Your task to perform on an android device: toggle show notifications on the lock screen Image 0: 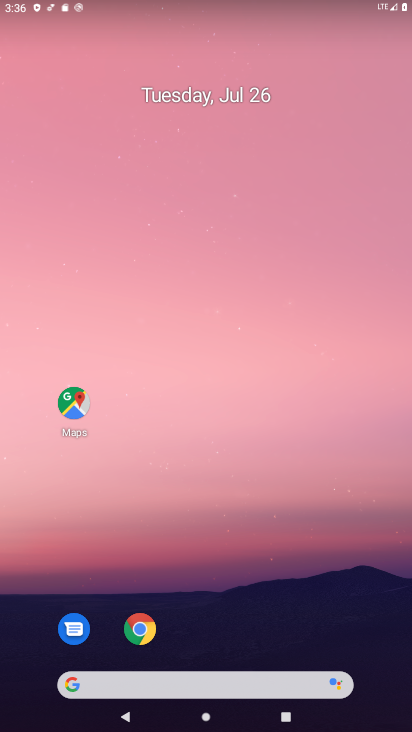
Step 0: drag from (227, 723) to (267, 67)
Your task to perform on an android device: toggle show notifications on the lock screen Image 1: 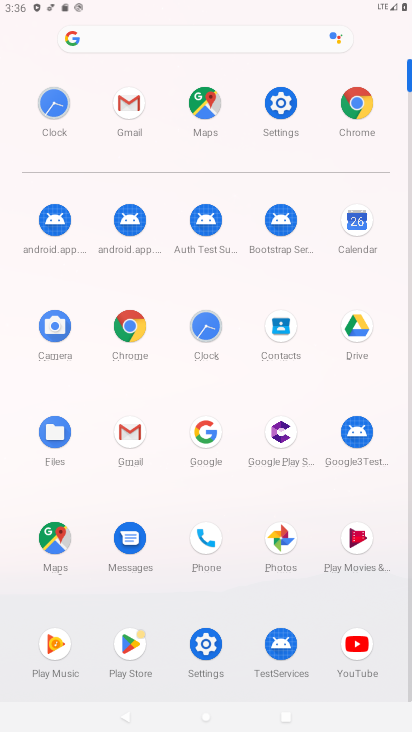
Step 1: click (282, 100)
Your task to perform on an android device: toggle show notifications on the lock screen Image 2: 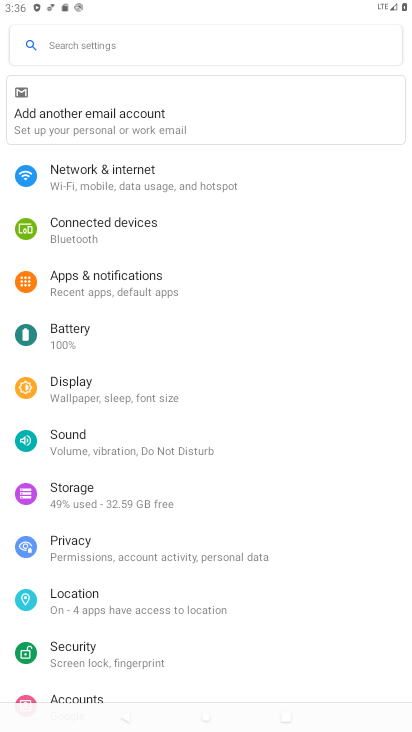
Step 2: click (114, 276)
Your task to perform on an android device: toggle show notifications on the lock screen Image 3: 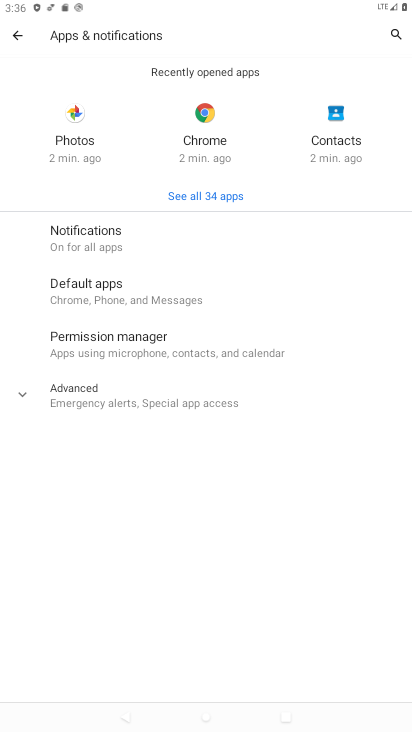
Step 3: click (75, 237)
Your task to perform on an android device: toggle show notifications on the lock screen Image 4: 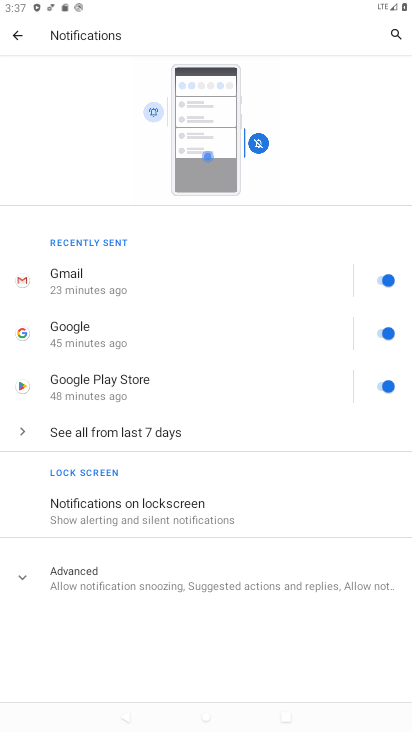
Step 4: click (95, 509)
Your task to perform on an android device: toggle show notifications on the lock screen Image 5: 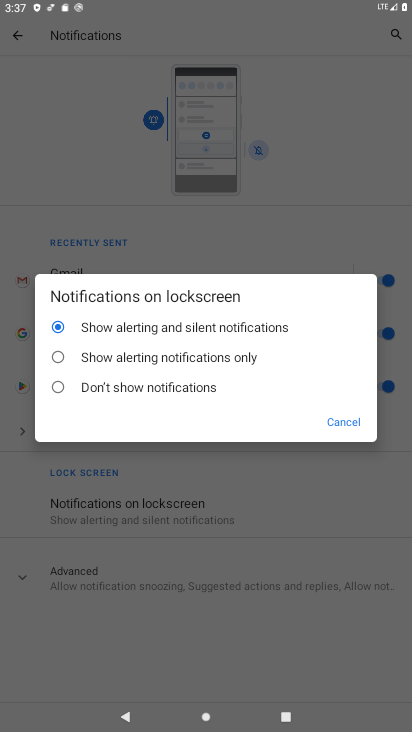
Step 5: click (57, 354)
Your task to perform on an android device: toggle show notifications on the lock screen Image 6: 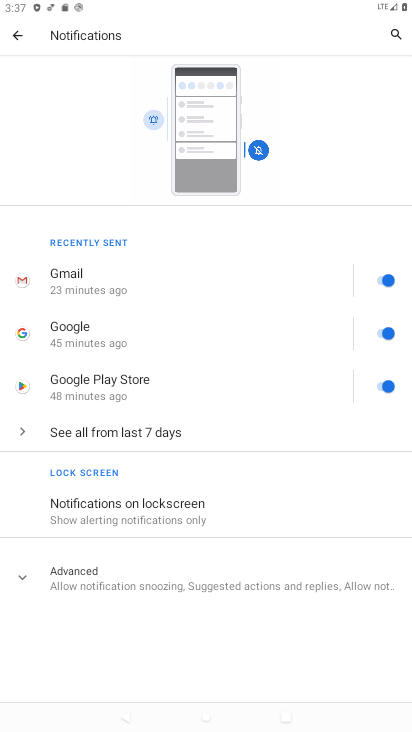
Step 6: task complete